Your task to perform on an android device: clear all cookies in the chrome app Image 0: 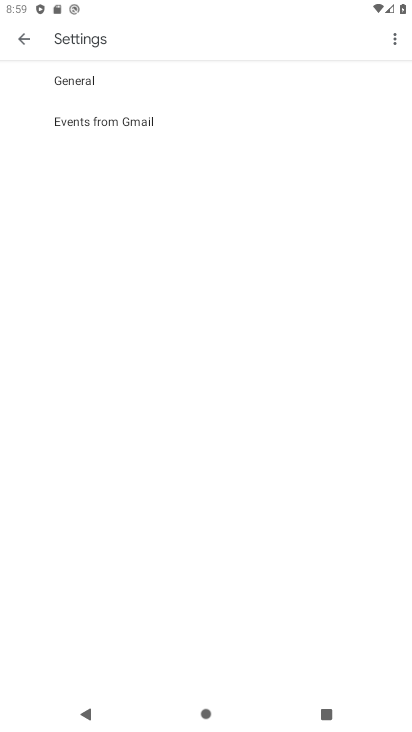
Step 0: press home button
Your task to perform on an android device: clear all cookies in the chrome app Image 1: 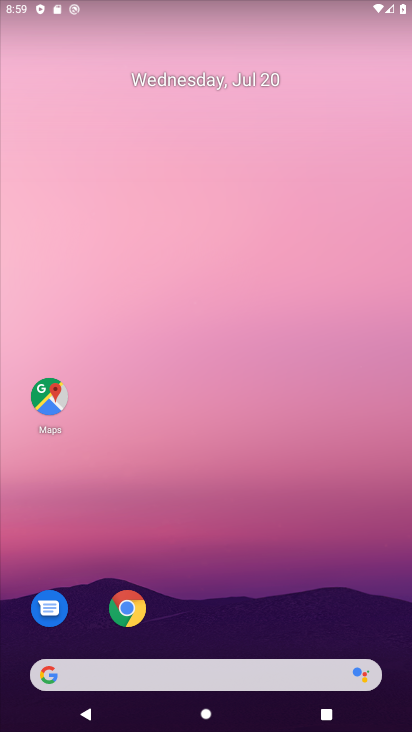
Step 1: click (139, 614)
Your task to perform on an android device: clear all cookies in the chrome app Image 2: 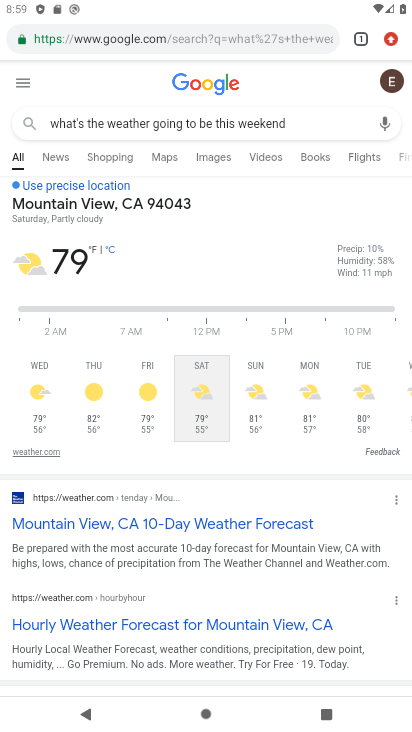
Step 2: click (394, 46)
Your task to perform on an android device: clear all cookies in the chrome app Image 3: 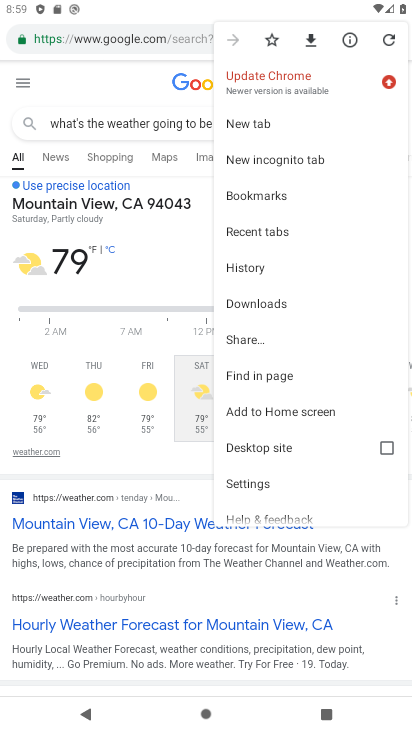
Step 3: click (282, 267)
Your task to perform on an android device: clear all cookies in the chrome app Image 4: 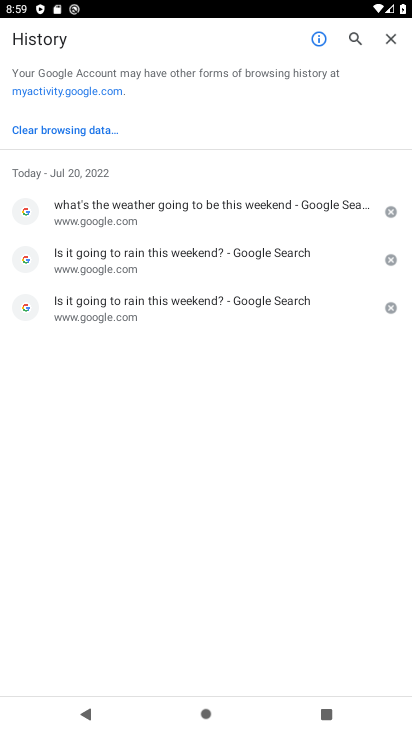
Step 4: click (50, 127)
Your task to perform on an android device: clear all cookies in the chrome app Image 5: 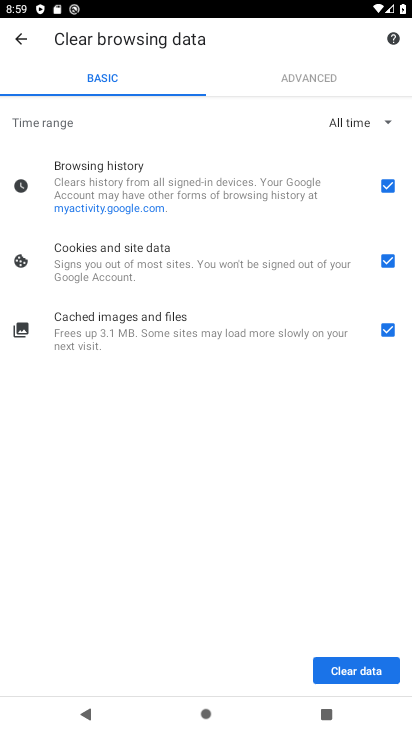
Step 5: click (392, 334)
Your task to perform on an android device: clear all cookies in the chrome app Image 6: 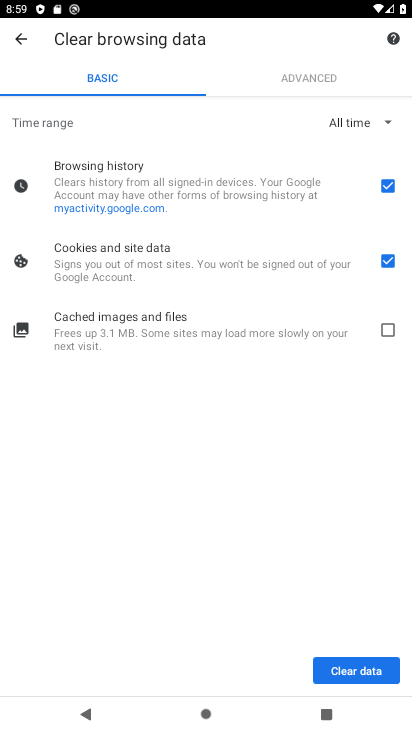
Step 6: click (385, 182)
Your task to perform on an android device: clear all cookies in the chrome app Image 7: 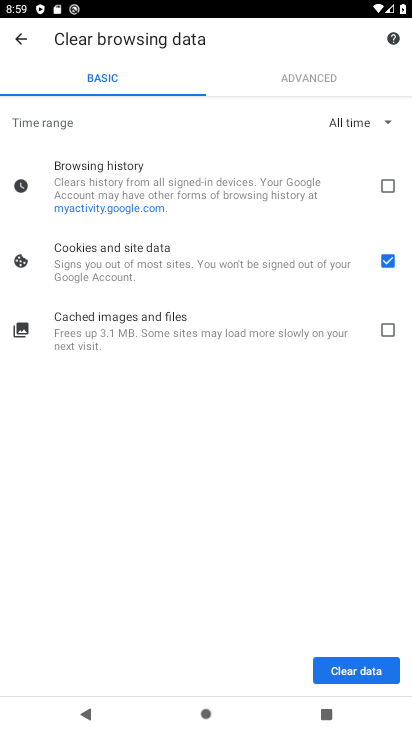
Step 7: click (365, 664)
Your task to perform on an android device: clear all cookies in the chrome app Image 8: 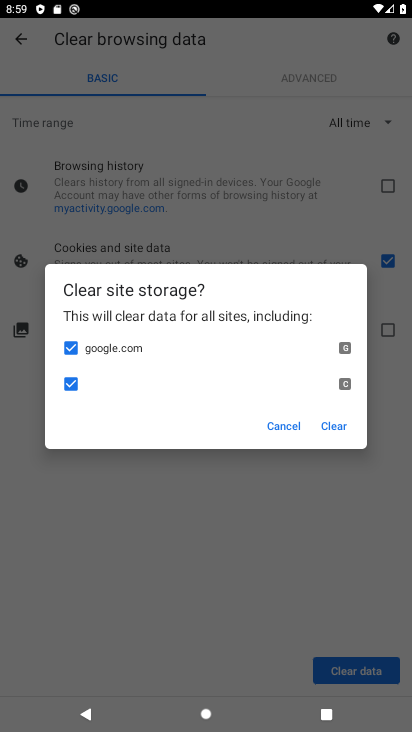
Step 8: click (335, 430)
Your task to perform on an android device: clear all cookies in the chrome app Image 9: 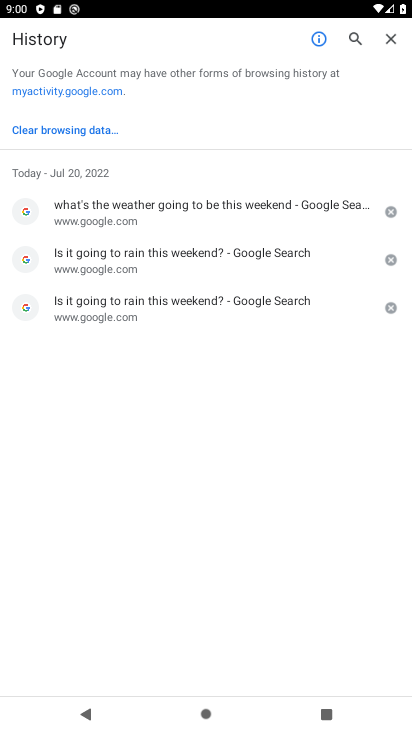
Step 9: task complete